Your task to perform on an android device: snooze an email in the gmail app Image 0: 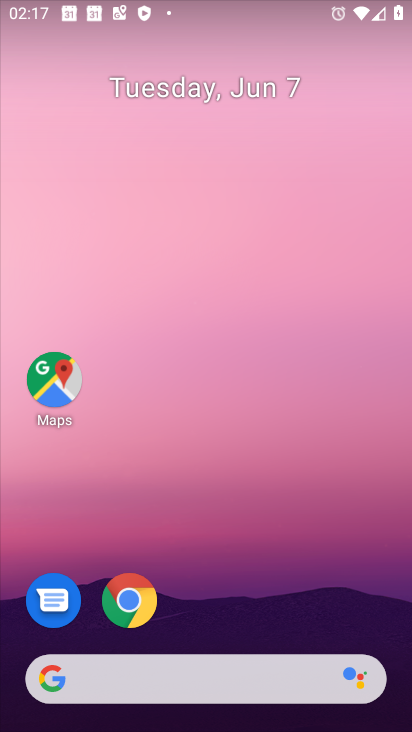
Step 0: drag from (256, 719) to (255, 188)
Your task to perform on an android device: snooze an email in the gmail app Image 1: 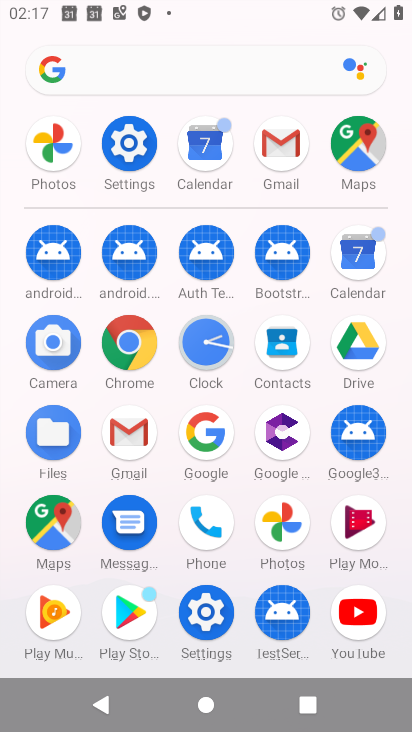
Step 1: click (122, 437)
Your task to perform on an android device: snooze an email in the gmail app Image 2: 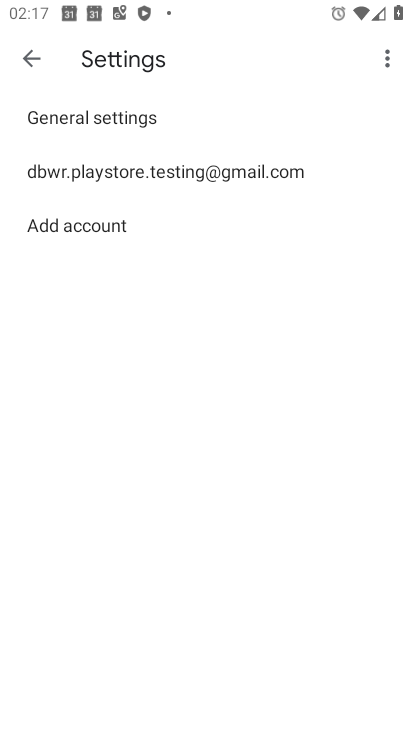
Step 2: click (34, 58)
Your task to perform on an android device: snooze an email in the gmail app Image 3: 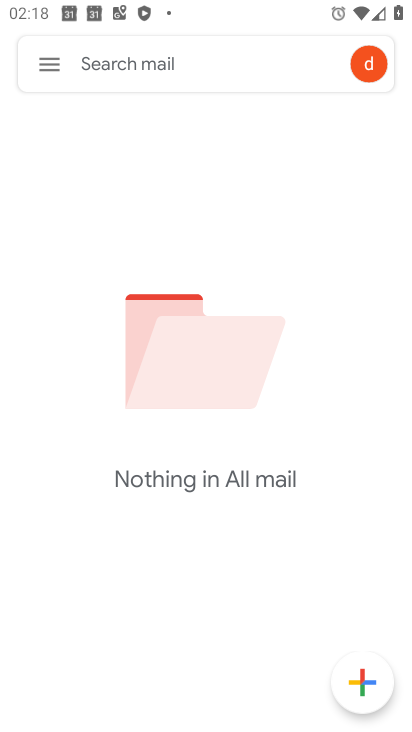
Step 3: click (46, 58)
Your task to perform on an android device: snooze an email in the gmail app Image 4: 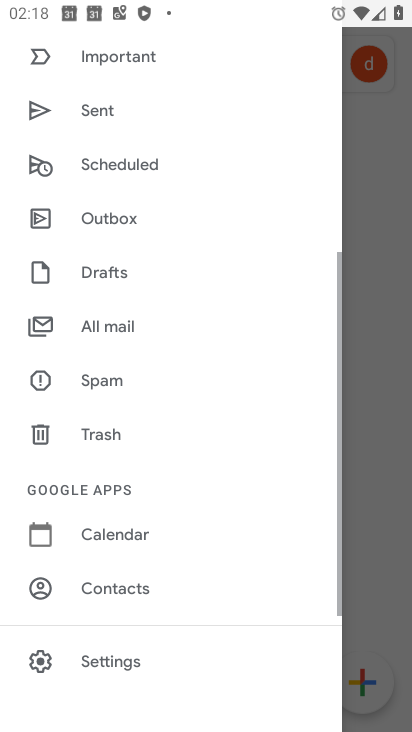
Step 4: drag from (112, 87) to (175, 493)
Your task to perform on an android device: snooze an email in the gmail app Image 5: 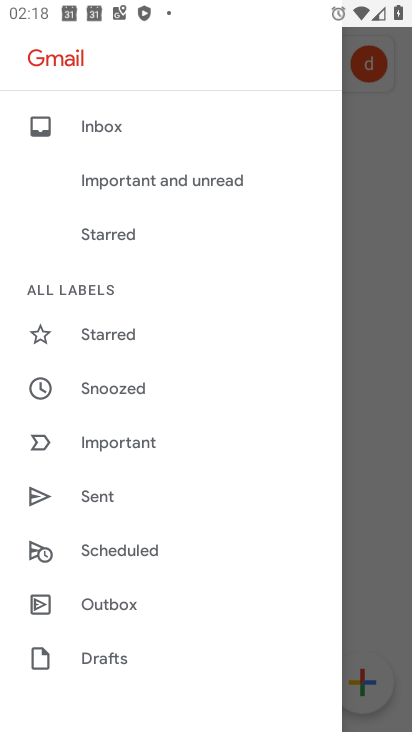
Step 5: click (112, 120)
Your task to perform on an android device: snooze an email in the gmail app Image 6: 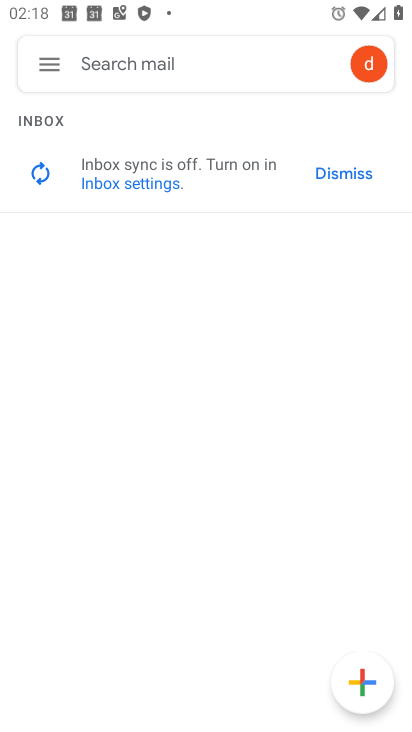
Step 6: task complete